Your task to perform on an android device: Open Android settings Image 0: 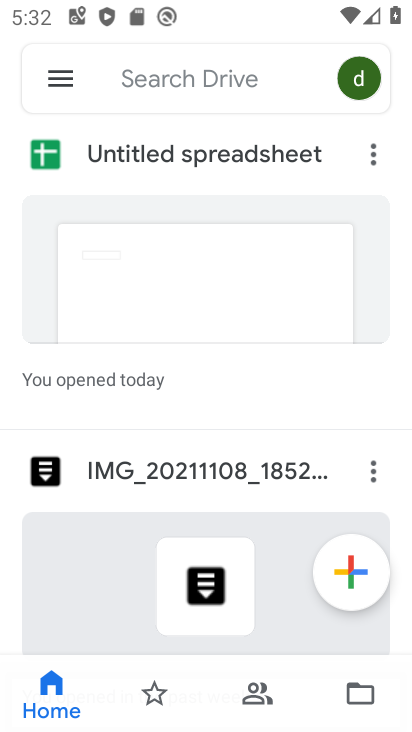
Step 0: press home button
Your task to perform on an android device: Open Android settings Image 1: 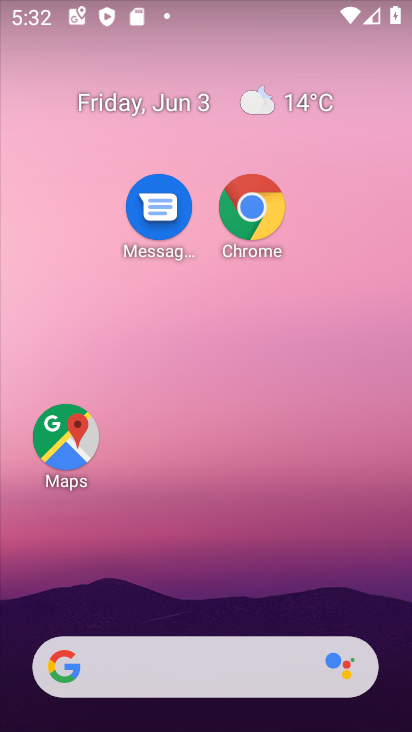
Step 1: drag from (190, 584) to (263, 31)
Your task to perform on an android device: Open Android settings Image 2: 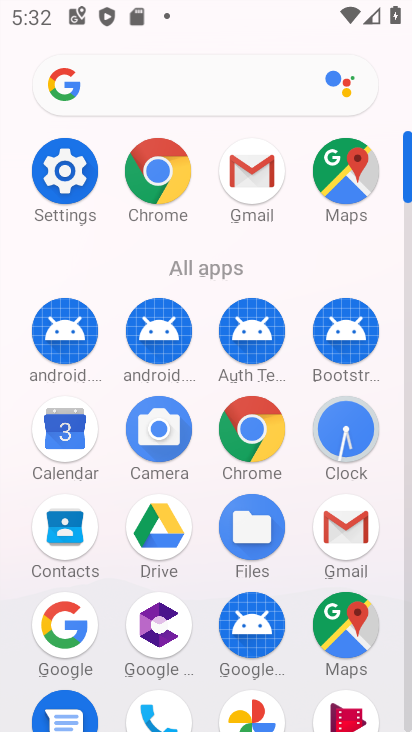
Step 2: click (58, 164)
Your task to perform on an android device: Open Android settings Image 3: 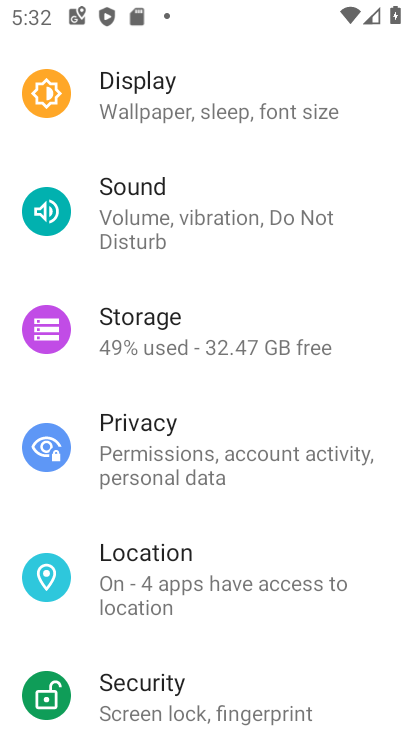
Step 3: drag from (264, 628) to (192, 14)
Your task to perform on an android device: Open Android settings Image 4: 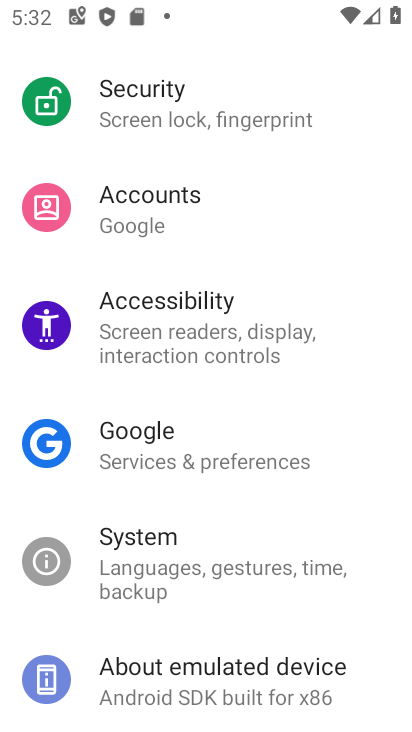
Step 4: drag from (266, 633) to (195, 321)
Your task to perform on an android device: Open Android settings Image 5: 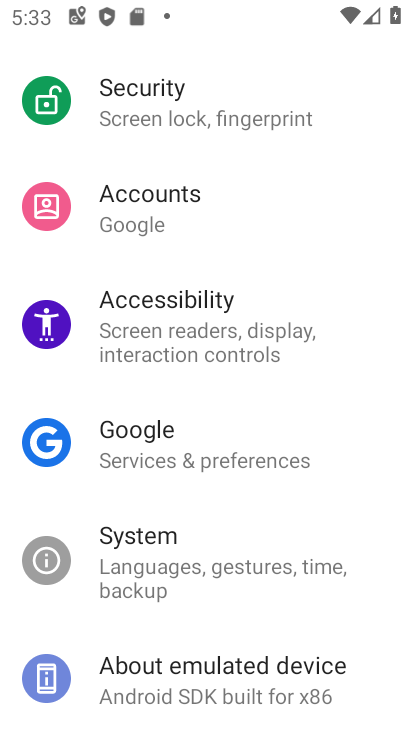
Step 5: click (247, 681)
Your task to perform on an android device: Open Android settings Image 6: 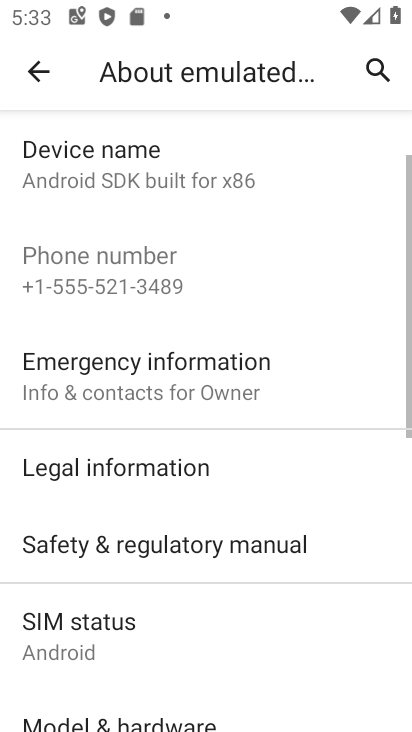
Step 6: drag from (187, 657) to (222, 286)
Your task to perform on an android device: Open Android settings Image 7: 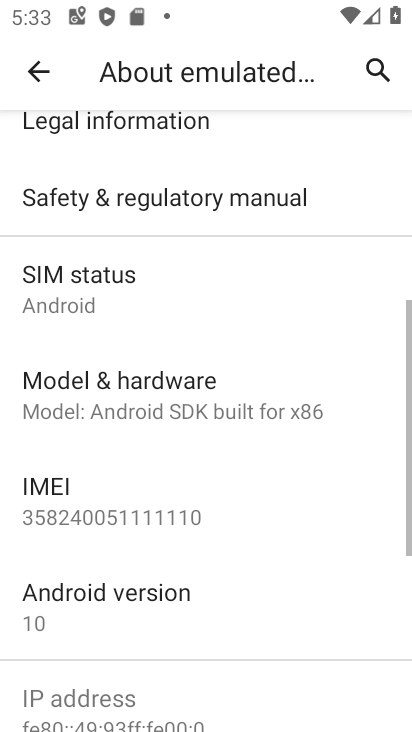
Step 7: drag from (264, 664) to (253, 370)
Your task to perform on an android device: Open Android settings Image 8: 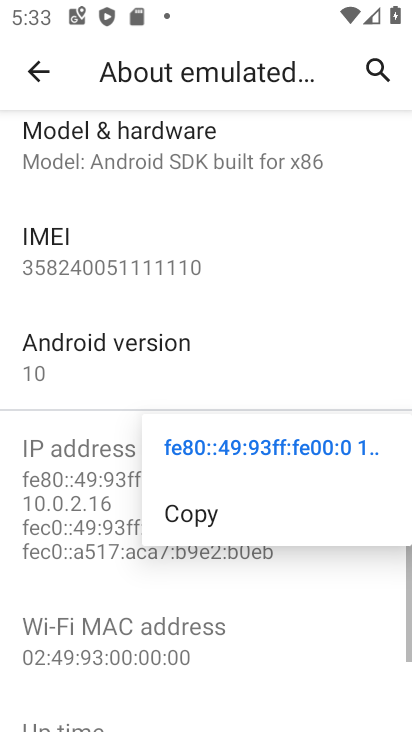
Step 8: click (167, 373)
Your task to perform on an android device: Open Android settings Image 9: 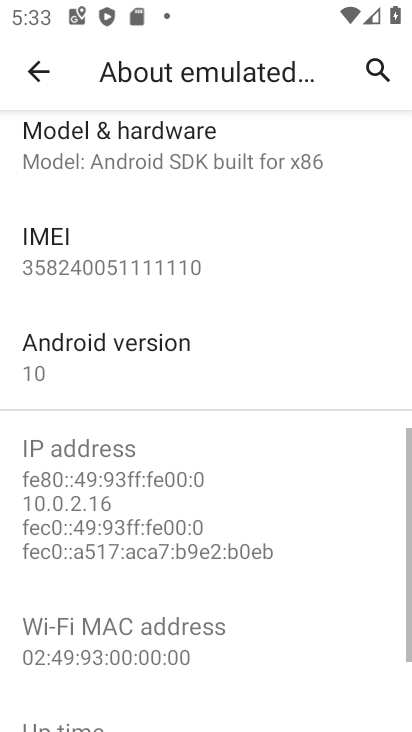
Step 9: click (168, 373)
Your task to perform on an android device: Open Android settings Image 10: 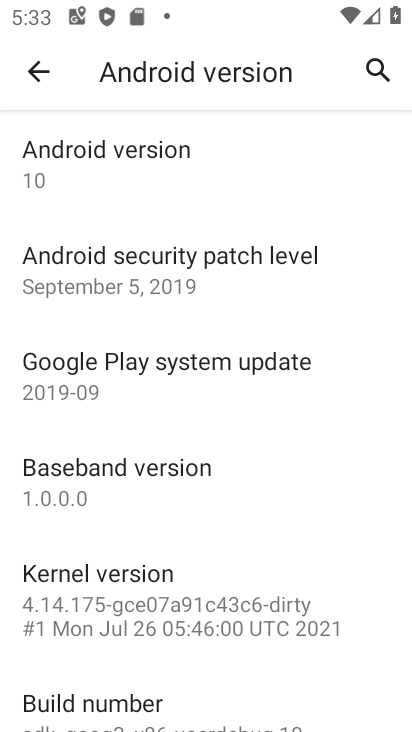
Step 10: task complete